Your task to perform on an android device: empty trash in the gmail app Image 0: 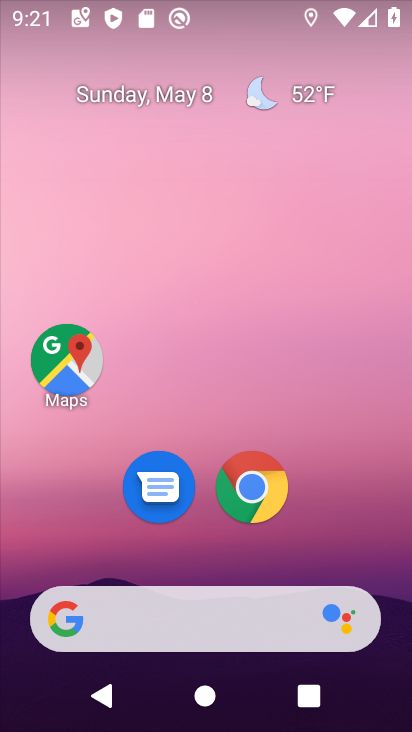
Step 0: drag from (403, 630) to (299, 30)
Your task to perform on an android device: empty trash in the gmail app Image 1: 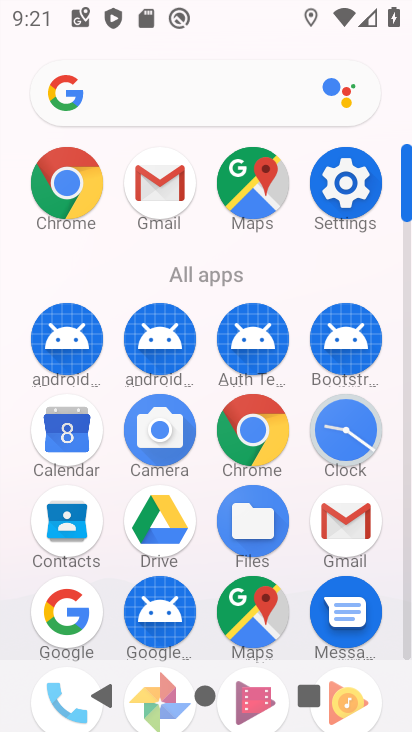
Step 1: click (354, 528)
Your task to perform on an android device: empty trash in the gmail app Image 2: 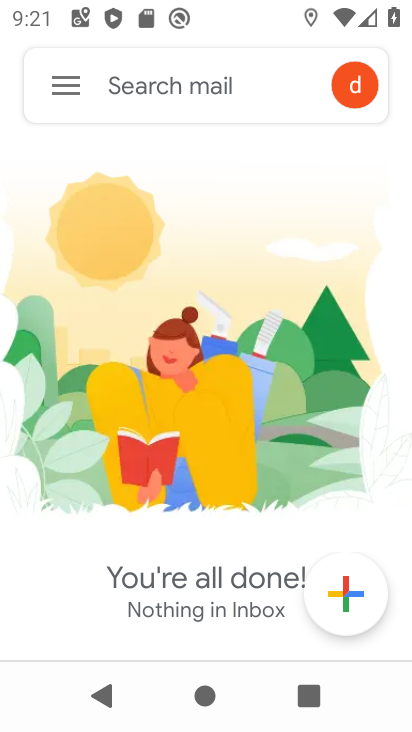
Step 2: click (60, 81)
Your task to perform on an android device: empty trash in the gmail app Image 3: 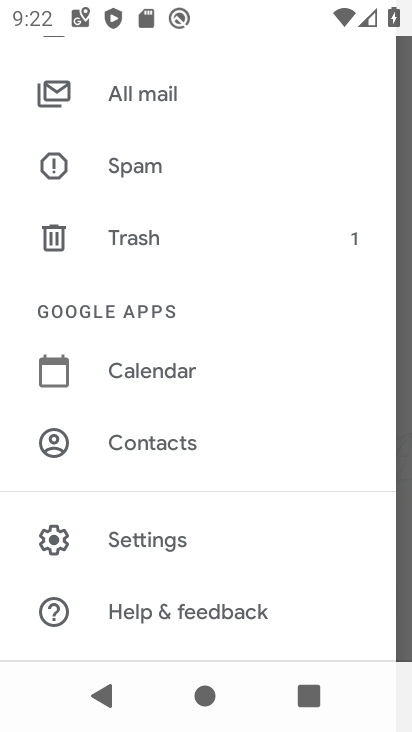
Step 3: click (91, 237)
Your task to perform on an android device: empty trash in the gmail app Image 4: 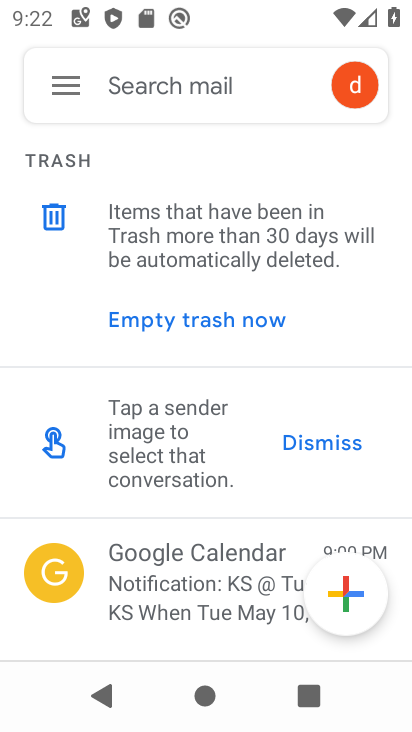
Step 4: click (196, 315)
Your task to perform on an android device: empty trash in the gmail app Image 5: 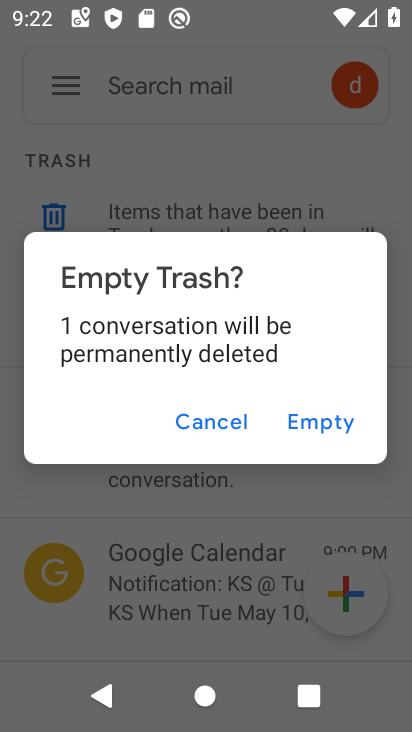
Step 5: click (308, 410)
Your task to perform on an android device: empty trash in the gmail app Image 6: 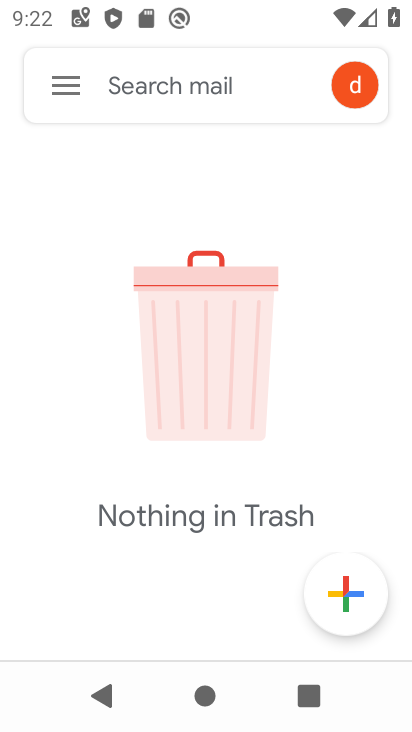
Step 6: task complete